Your task to perform on an android device: Open the stopwatch Image 0: 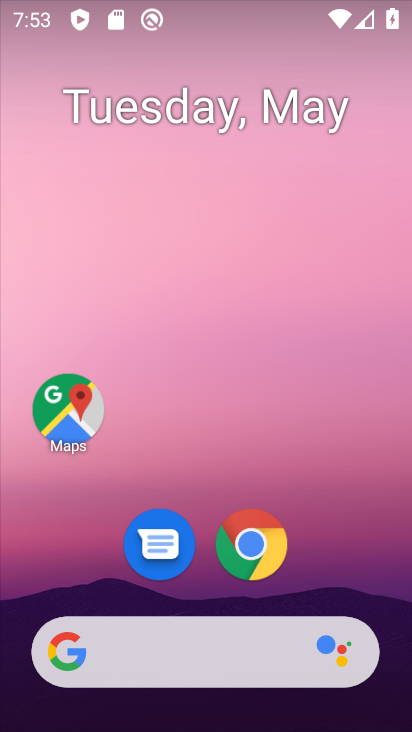
Step 0: drag from (354, 535) to (251, 60)
Your task to perform on an android device: Open the stopwatch Image 1: 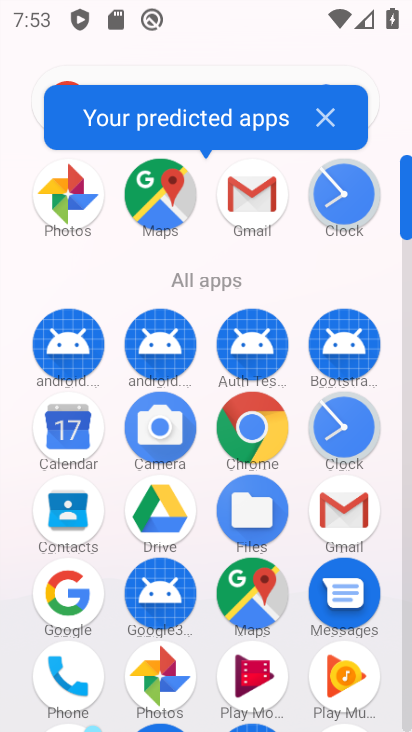
Step 1: click (342, 196)
Your task to perform on an android device: Open the stopwatch Image 2: 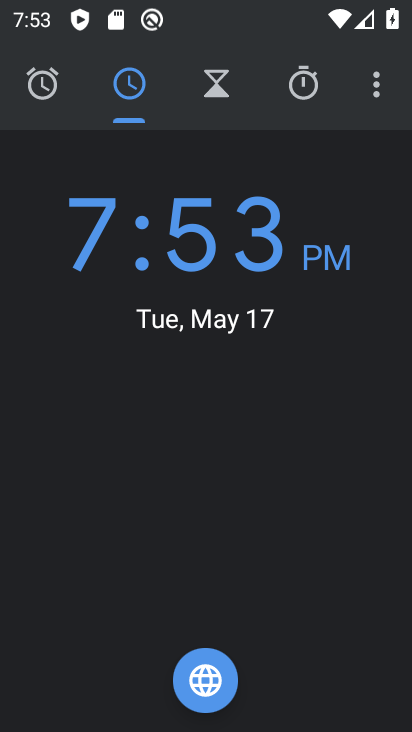
Step 2: click (303, 81)
Your task to perform on an android device: Open the stopwatch Image 3: 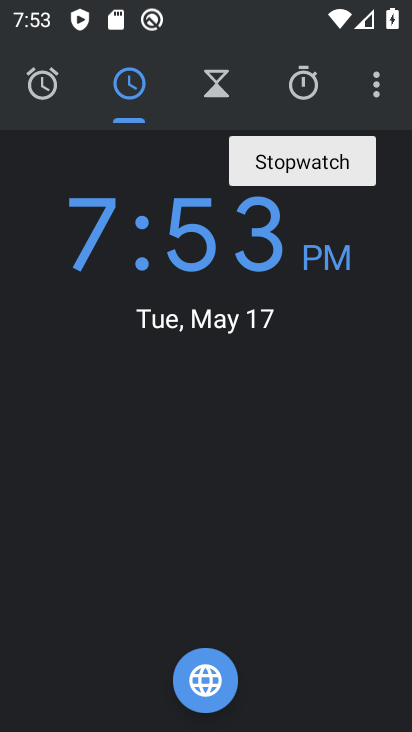
Step 3: click (303, 81)
Your task to perform on an android device: Open the stopwatch Image 4: 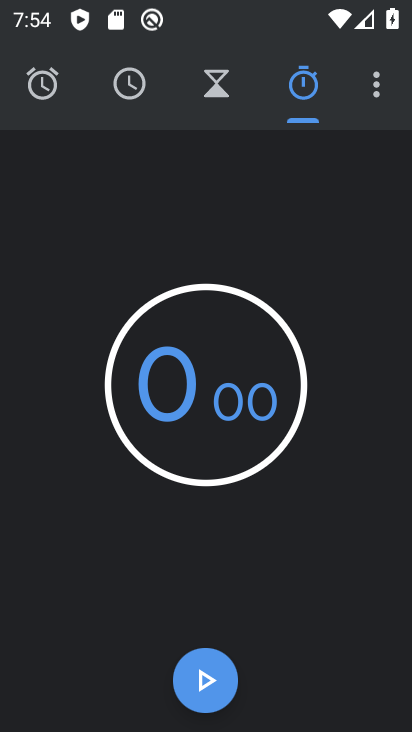
Step 4: task complete